Your task to perform on an android device: turn pop-ups on in chrome Image 0: 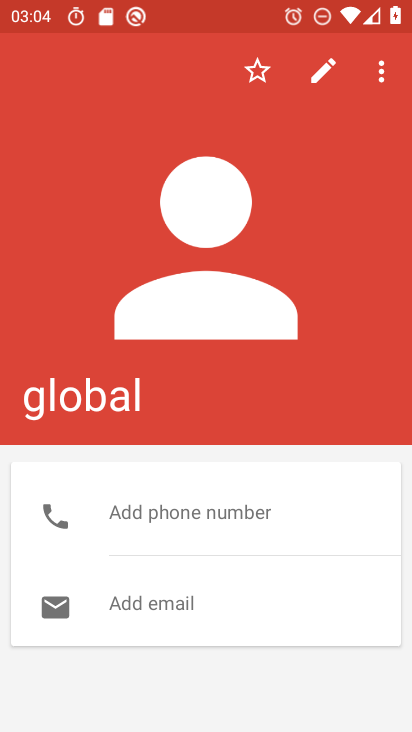
Step 0: press home button
Your task to perform on an android device: turn pop-ups on in chrome Image 1: 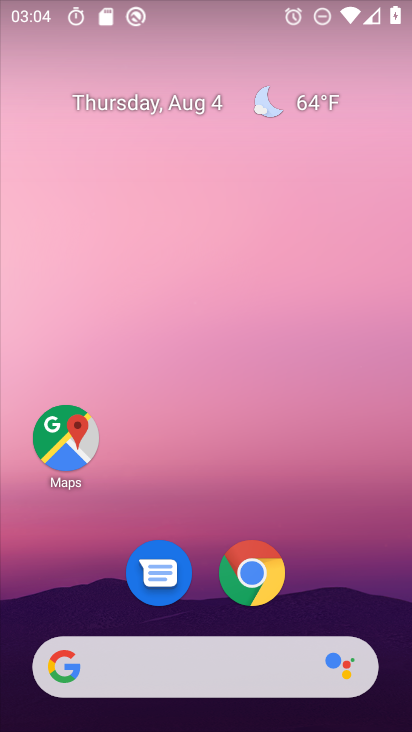
Step 1: drag from (317, 567) to (283, 117)
Your task to perform on an android device: turn pop-ups on in chrome Image 2: 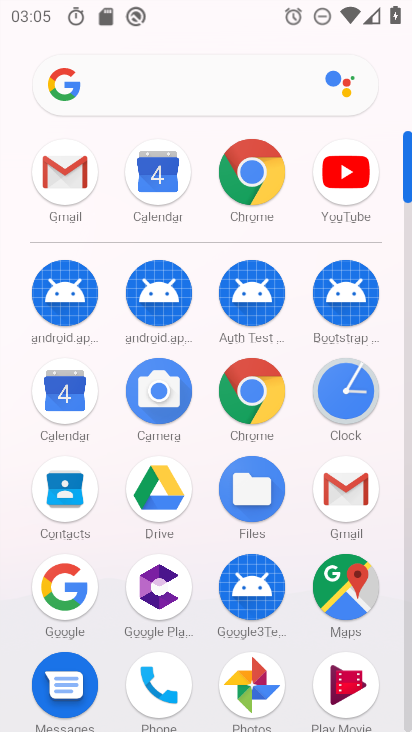
Step 2: click (245, 383)
Your task to perform on an android device: turn pop-ups on in chrome Image 3: 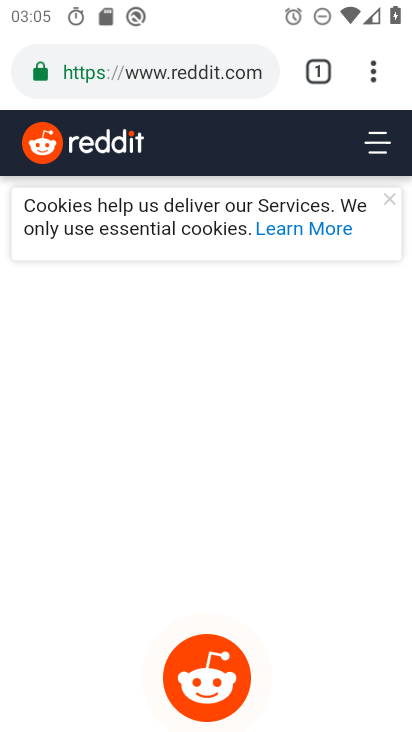
Step 3: drag from (369, 70) to (184, 574)
Your task to perform on an android device: turn pop-ups on in chrome Image 4: 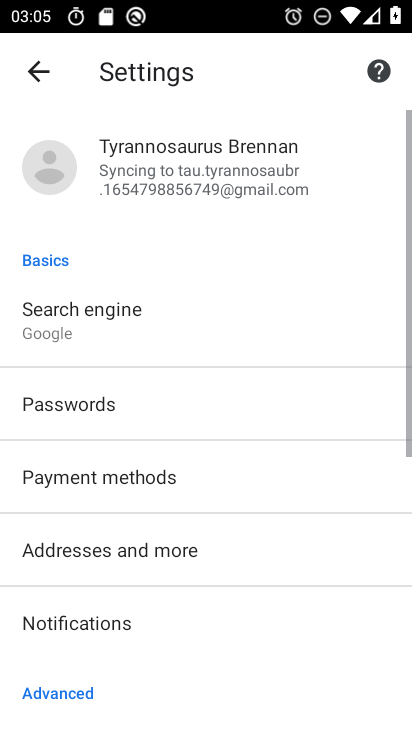
Step 4: drag from (242, 618) to (272, 135)
Your task to perform on an android device: turn pop-ups on in chrome Image 5: 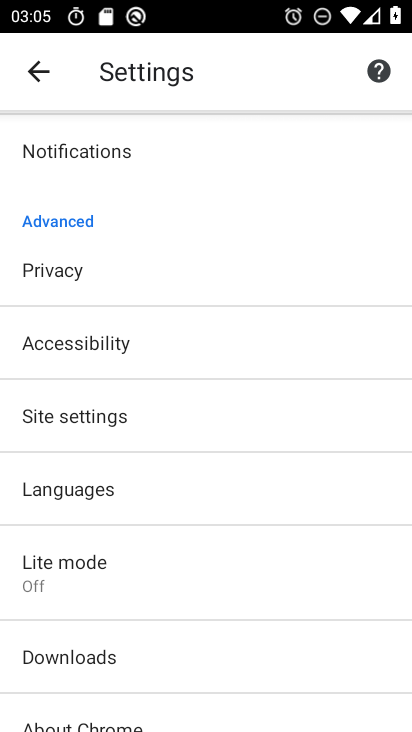
Step 5: click (116, 420)
Your task to perform on an android device: turn pop-ups on in chrome Image 6: 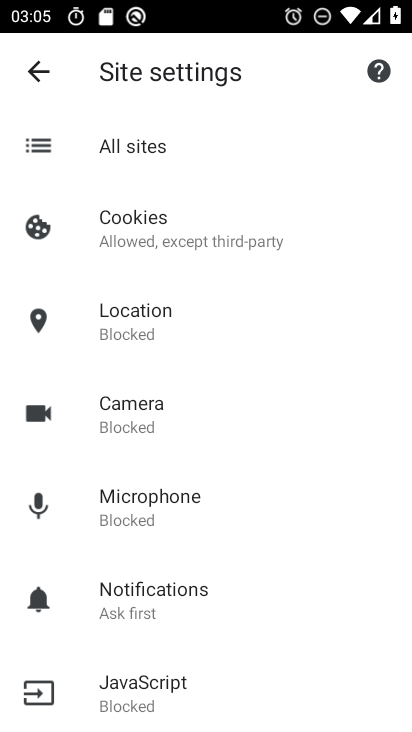
Step 6: drag from (185, 645) to (245, 193)
Your task to perform on an android device: turn pop-ups on in chrome Image 7: 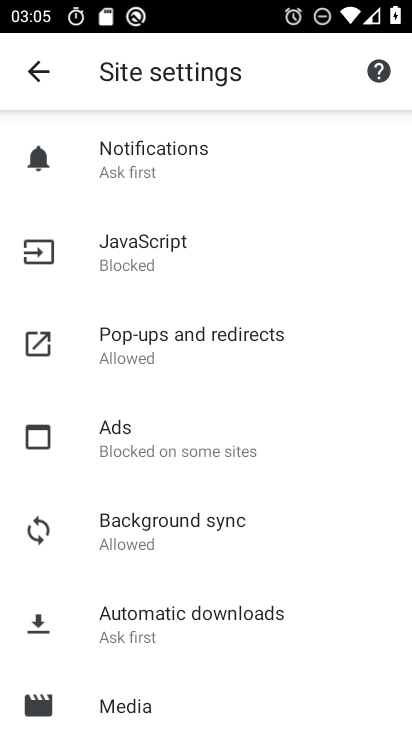
Step 7: click (172, 355)
Your task to perform on an android device: turn pop-ups on in chrome Image 8: 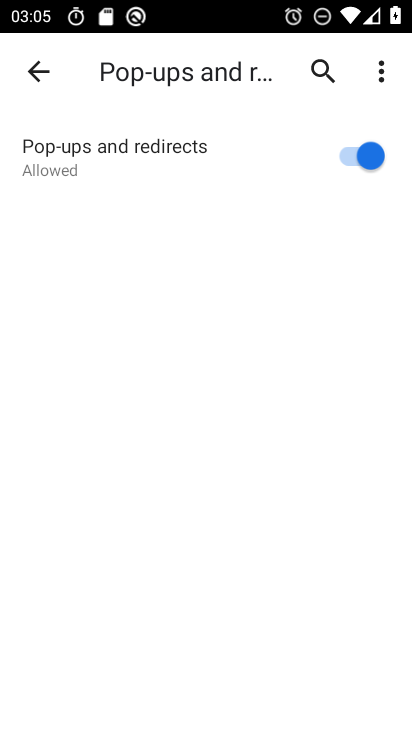
Step 8: task complete